Your task to perform on an android device: turn off picture-in-picture Image 0: 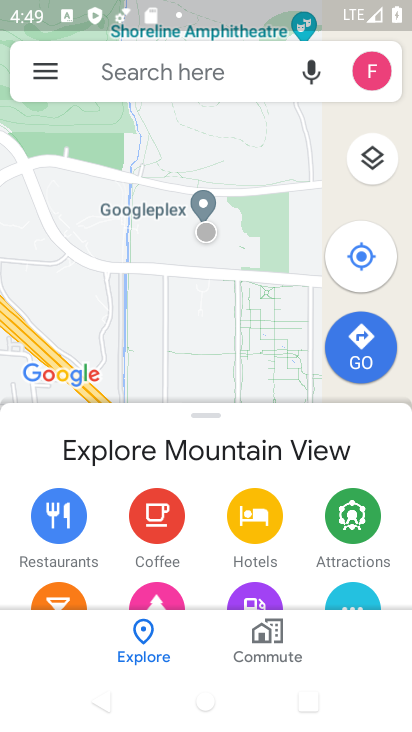
Step 0: press home button
Your task to perform on an android device: turn off picture-in-picture Image 1: 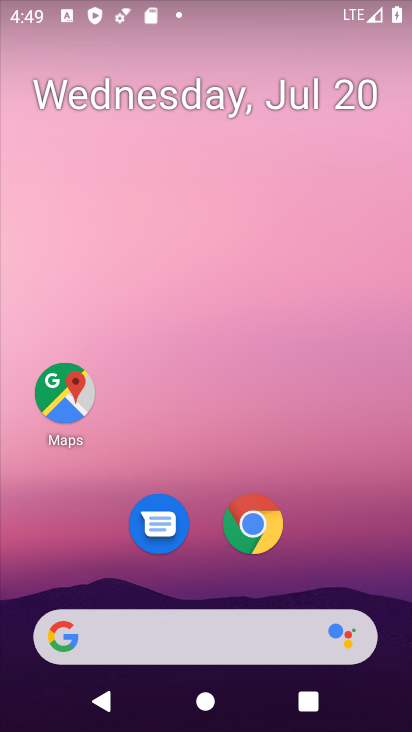
Step 1: click (255, 510)
Your task to perform on an android device: turn off picture-in-picture Image 2: 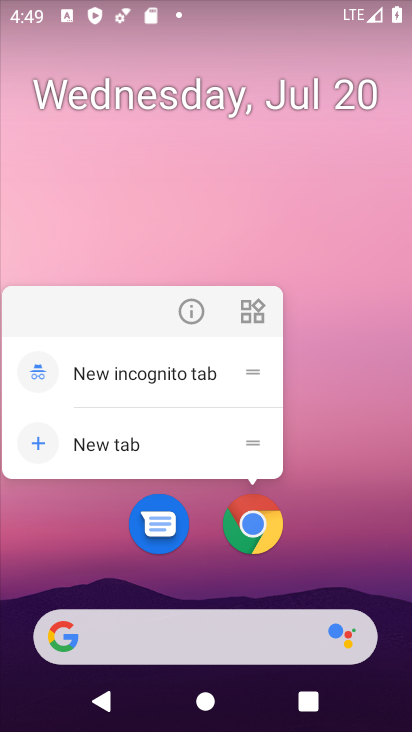
Step 2: click (190, 299)
Your task to perform on an android device: turn off picture-in-picture Image 3: 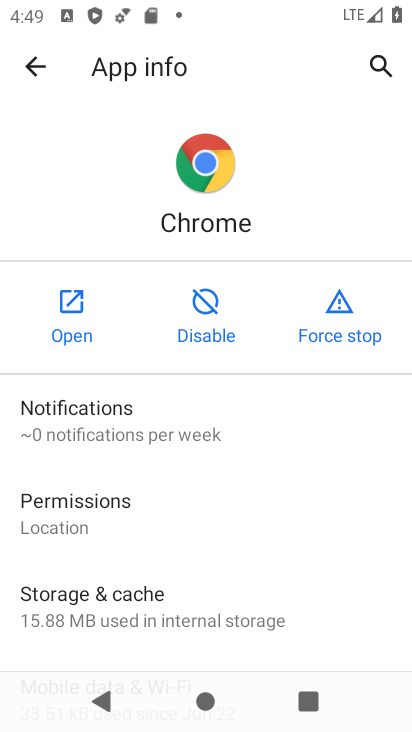
Step 3: drag from (239, 566) to (272, 281)
Your task to perform on an android device: turn off picture-in-picture Image 4: 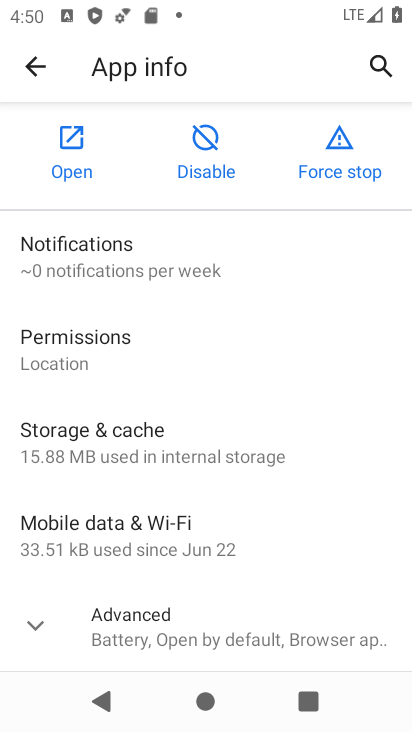
Step 4: drag from (202, 564) to (230, 169)
Your task to perform on an android device: turn off picture-in-picture Image 5: 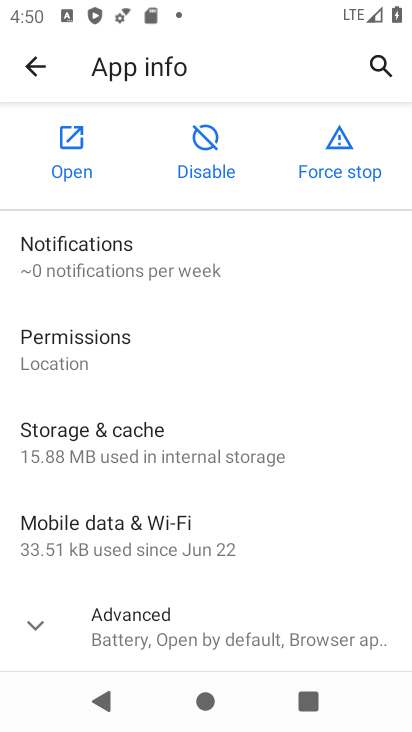
Step 5: click (32, 630)
Your task to perform on an android device: turn off picture-in-picture Image 6: 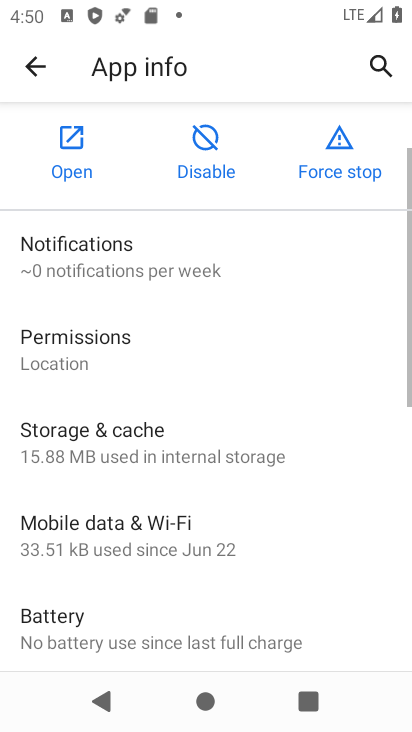
Step 6: drag from (147, 561) to (218, 211)
Your task to perform on an android device: turn off picture-in-picture Image 7: 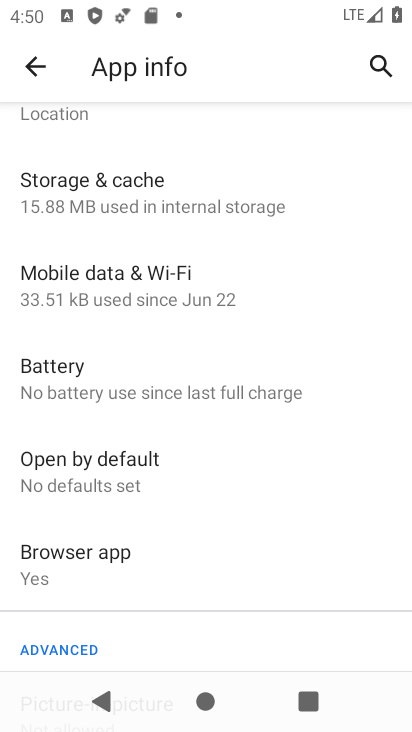
Step 7: drag from (214, 511) to (220, 175)
Your task to perform on an android device: turn off picture-in-picture Image 8: 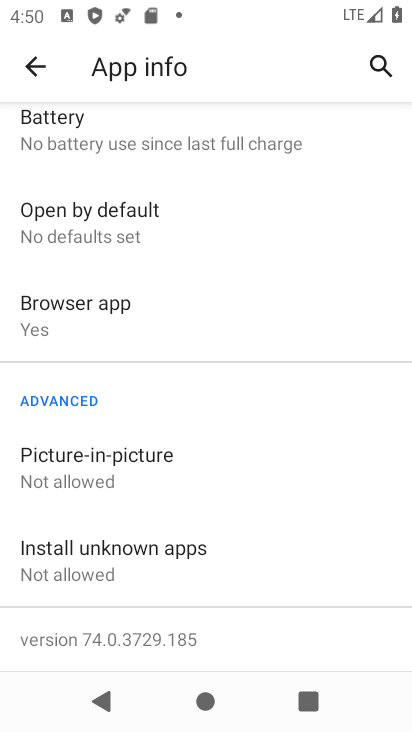
Step 8: click (96, 456)
Your task to perform on an android device: turn off picture-in-picture Image 9: 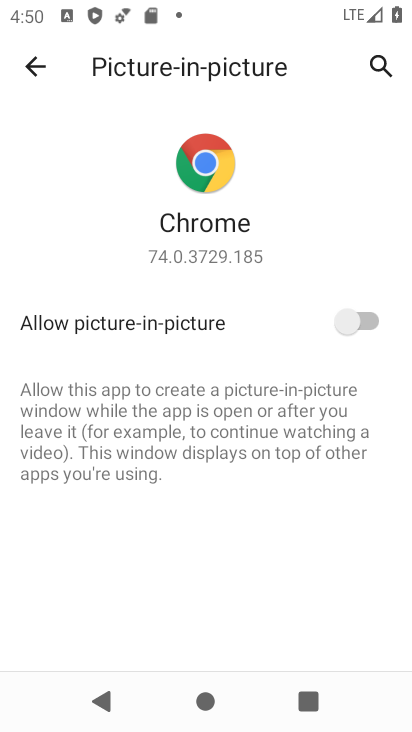
Step 9: task complete